Your task to perform on an android device: Open location settings Image 0: 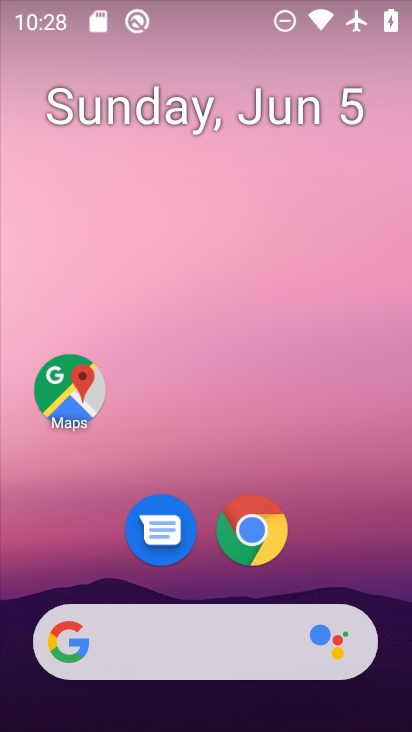
Step 0: drag from (407, 630) to (321, 23)
Your task to perform on an android device: Open location settings Image 1: 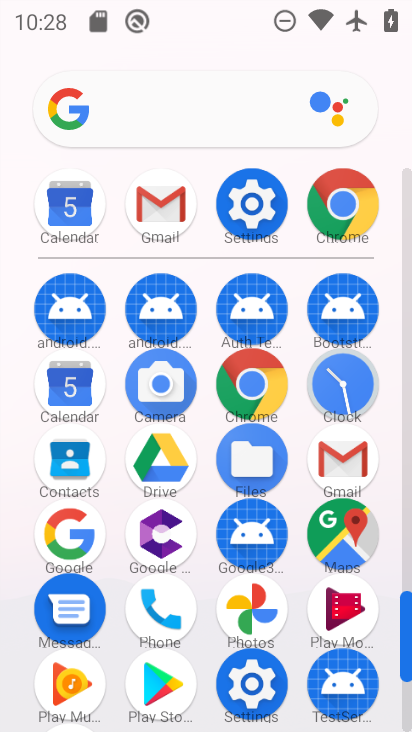
Step 1: drag from (409, 576) to (409, 518)
Your task to perform on an android device: Open location settings Image 2: 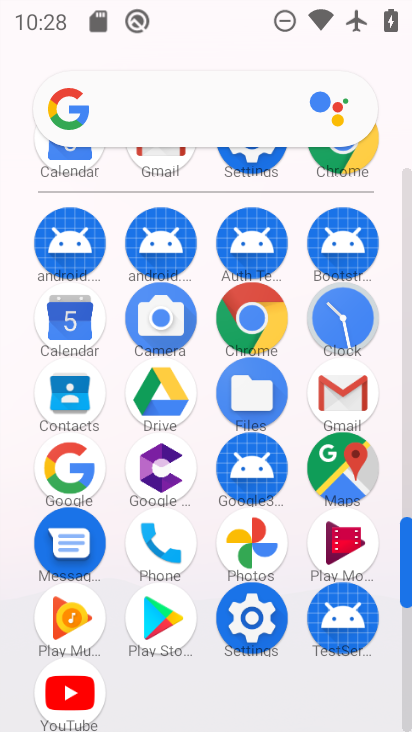
Step 2: click (251, 620)
Your task to perform on an android device: Open location settings Image 3: 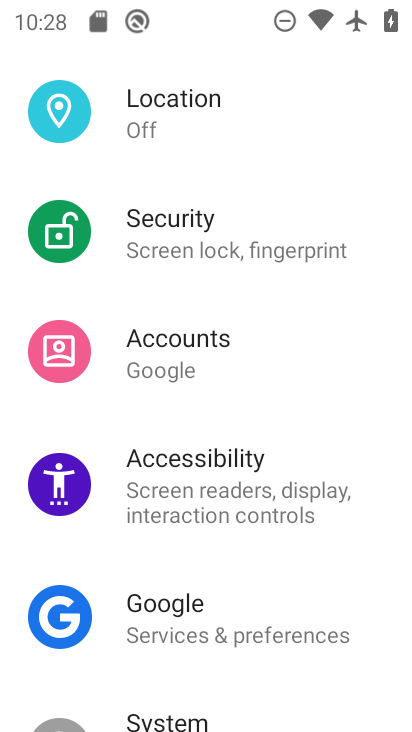
Step 3: drag from (285, 155) to (320, 434)
Your task to perform on an android device: Open location settings Image 4: 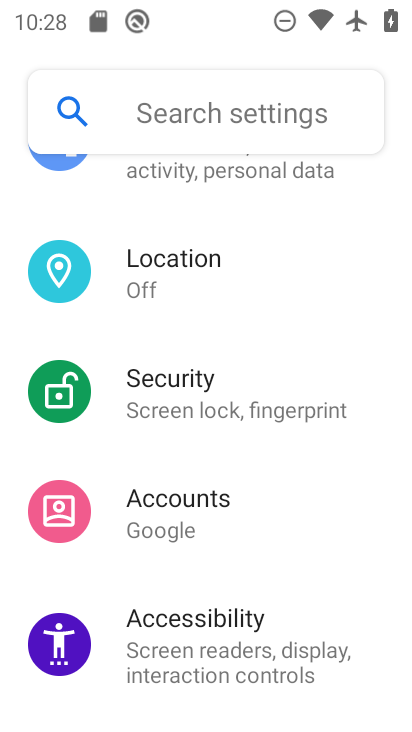
Step 4: click (164, 270)
Your task to perform on an android device: Open location settings Image 5: 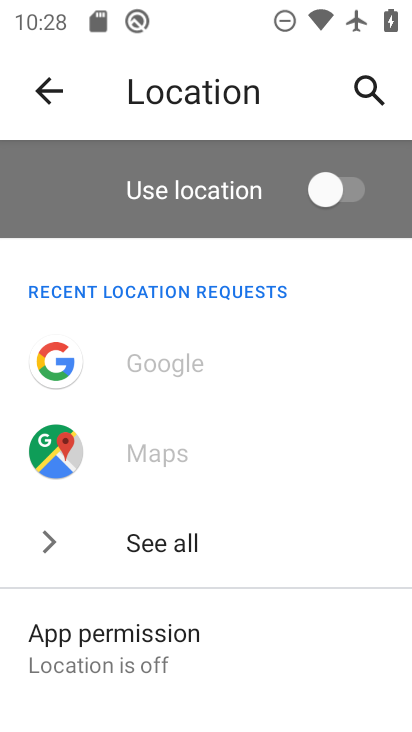
Step 5: drag from (227, 682) to (199, 203)
Your task to perform on an android device: Open location settings Image 6: 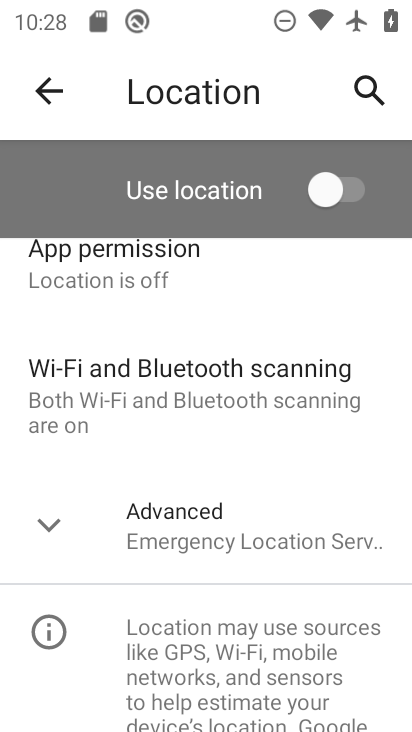
Step 6: click (37, 524)
Your task to perform on an android device: Open location settings Image 7: 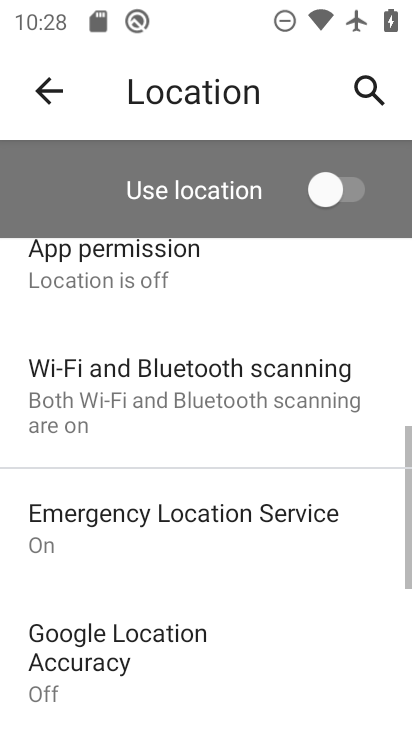
Step 7: task complete